Your task to perform on an android device: Open Youtube and go to the subscriptions tab Image 0: 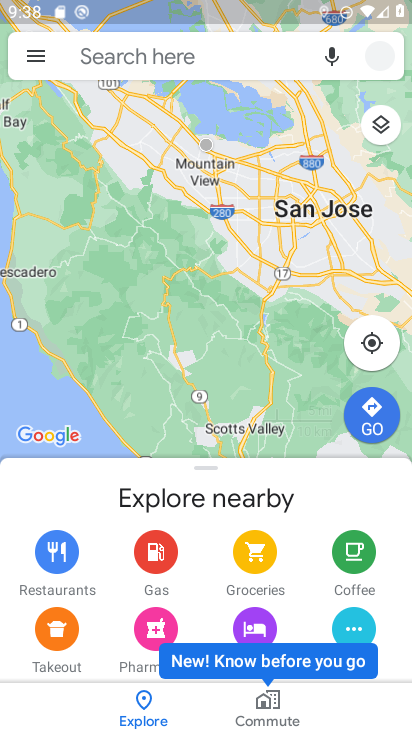
Step 0: press home button
Your task to perform on an android device: Open Youtube and go to the subscriptions tab Image 1: 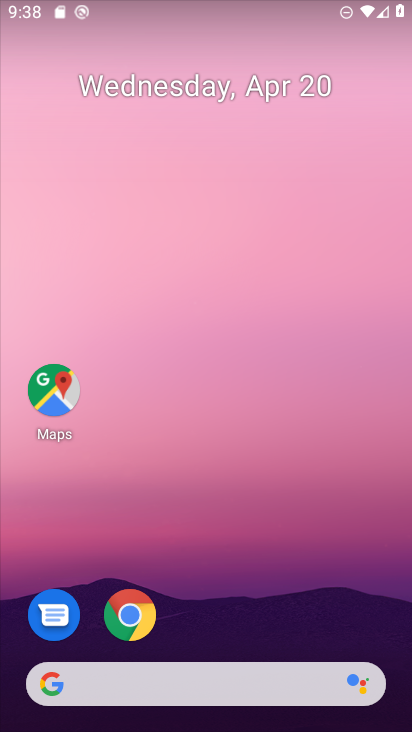
Step 1: drag from (206, 606) to (255, 9)
Your task to perform on an android device: Open Youtube and go to the subscriptions tab Image 2: 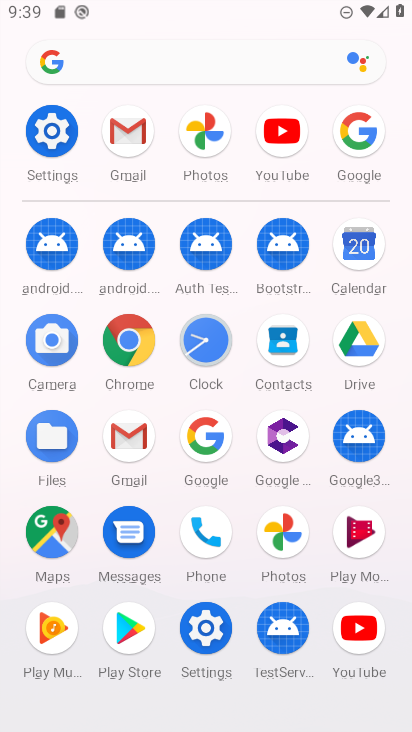
Step 2: click (284, 131)
Your task to perform on an android device: Open Youtube and go to the subscriptions tab Image 3: 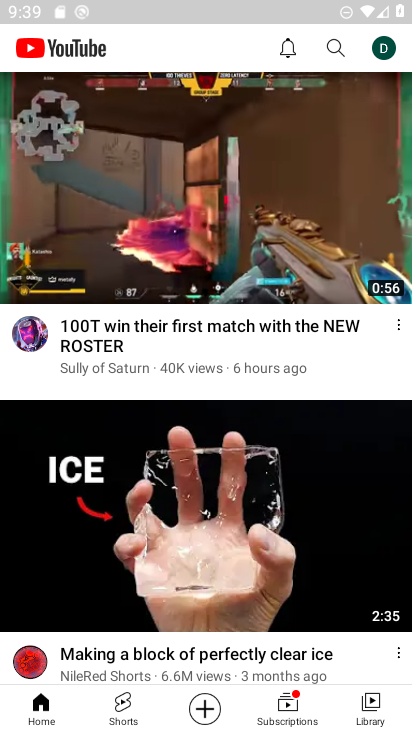
Step 3: click (293, 703)
Your task to perform on an android device: Open Youtube and go to the subscriptions tab Image 4: 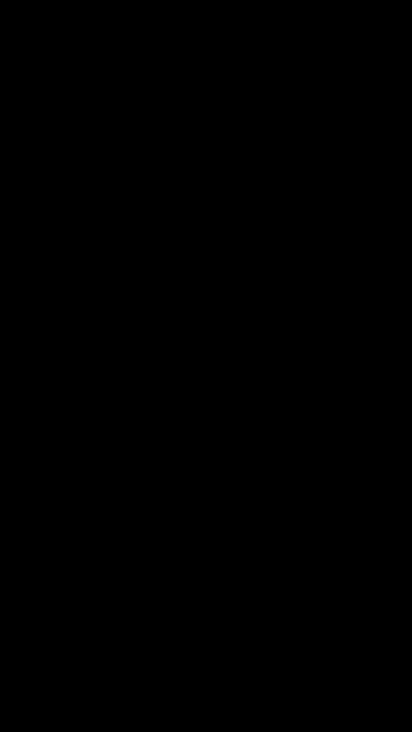
Step 4: task complete